Your task to perform on an android device: change the clock display to analog Image 0: 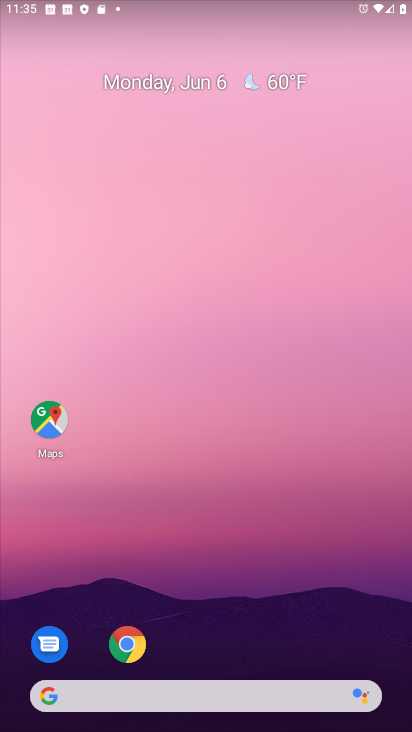
Step 0: drag from (120, 726) to (120, 68)
Your task to perform on an android device: change the clock display to analog Image 1: 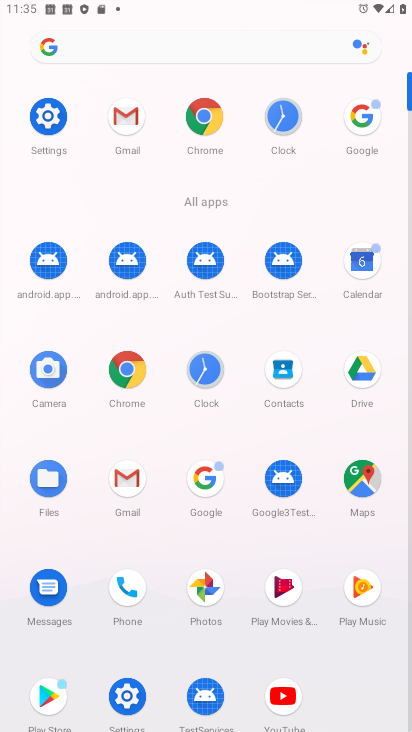
Step 1: click (283, 115)
Your task to perform on an android device: change the clock display to analog Image 2: 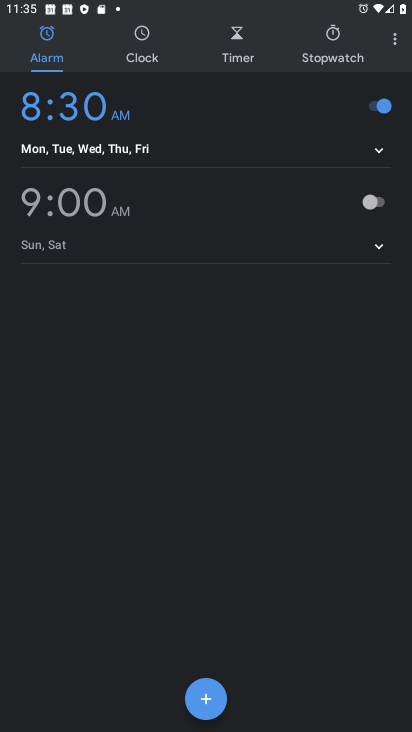
Step 2: click (387, 37)
Your task to perform on an android device: change the clock display to analog Image 3: 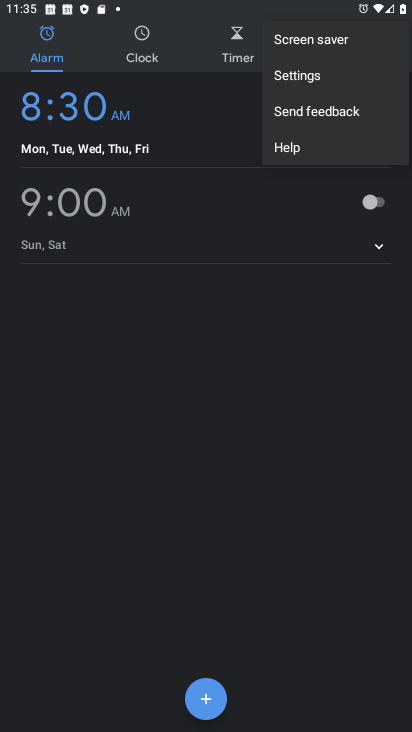
Step 3: click (288, 82)
Your task to perform on an android device: change the clock display to analog Image 4: 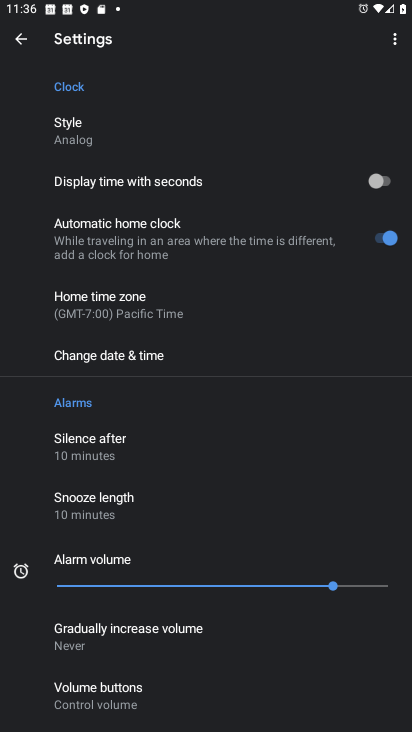
Step 4: click (56, 134)
Your task to perform on an android device: change the clock display to analog Image 5: 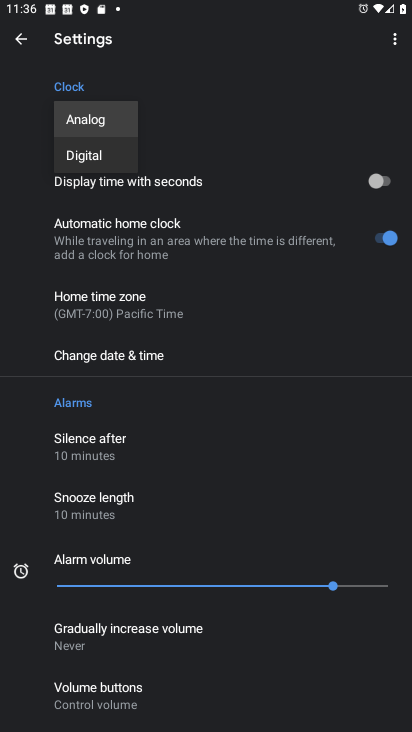
Step 5: task complete